Your task to perform on an android device: open app "Spotify" Image 0: 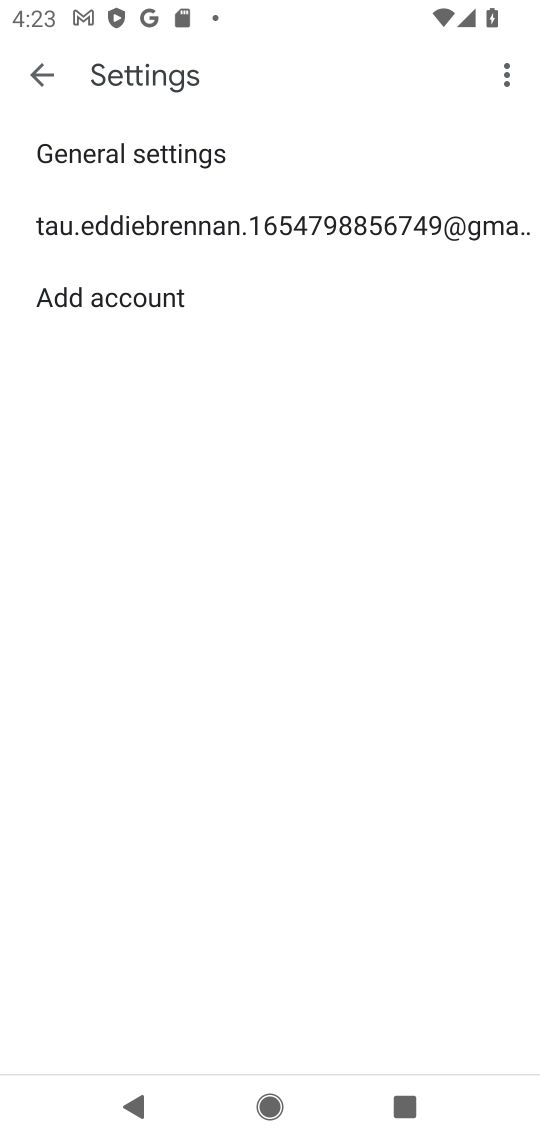
Step 0: press home button
Your task to perform on an android device: open app "Spotify" Image 1: 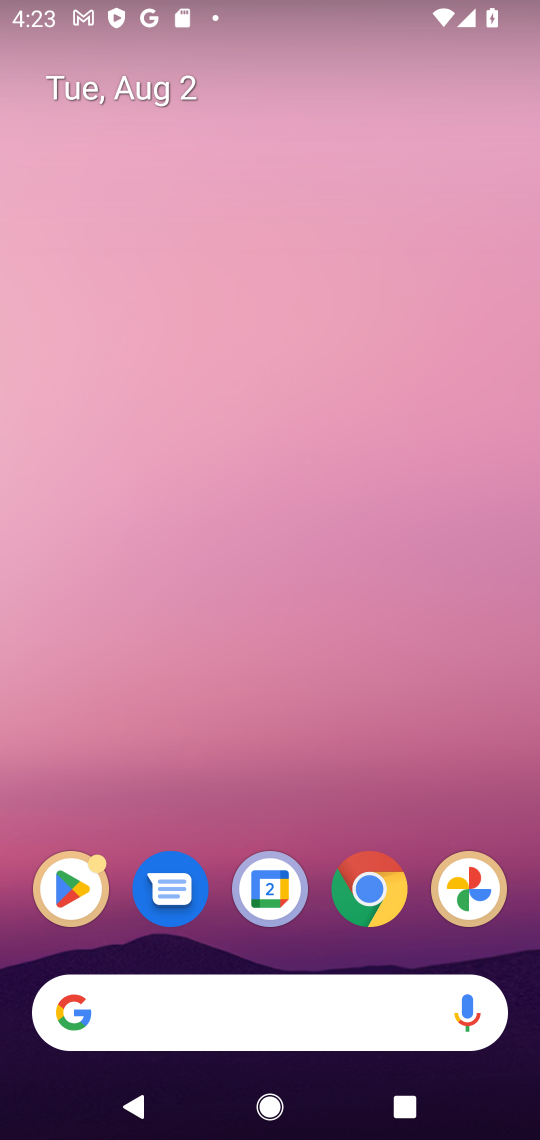
Step 1: click (62, 868)
Your task to perform on an android device: open app "Spotify" Image 2: 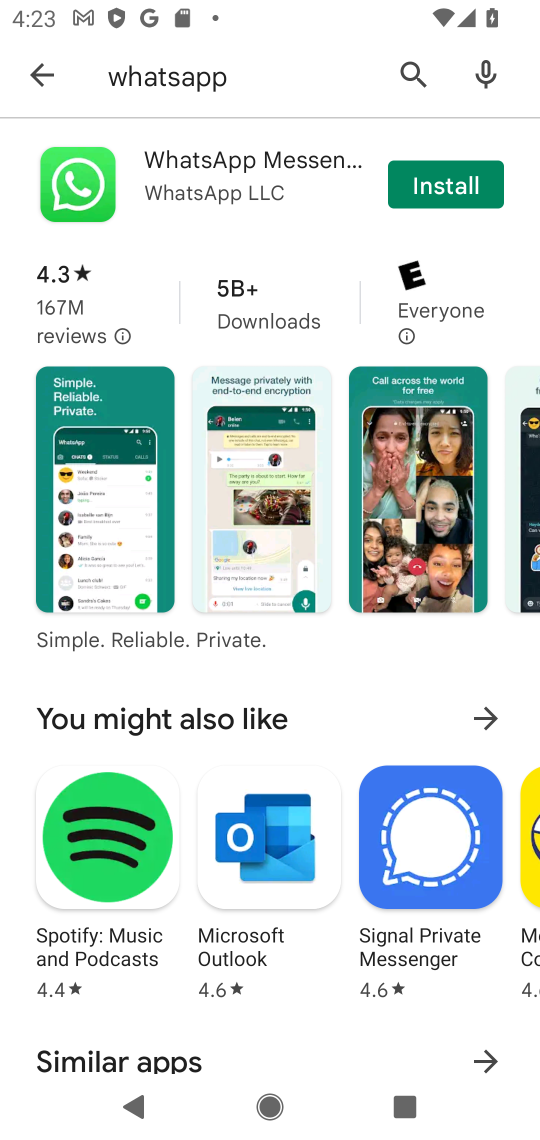
Step 2: click (406, 73)
Your task to perform on an android device: open app "Spotify" Image 3: 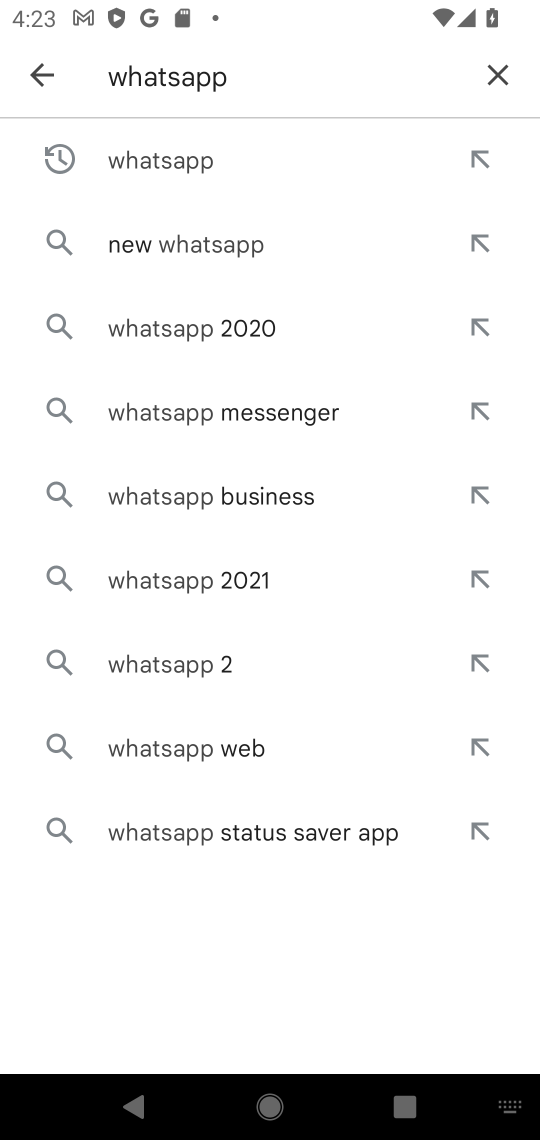
Step 3: click (503, 71)
Your task to perform on an android device: open app "Spotify" Image 4: 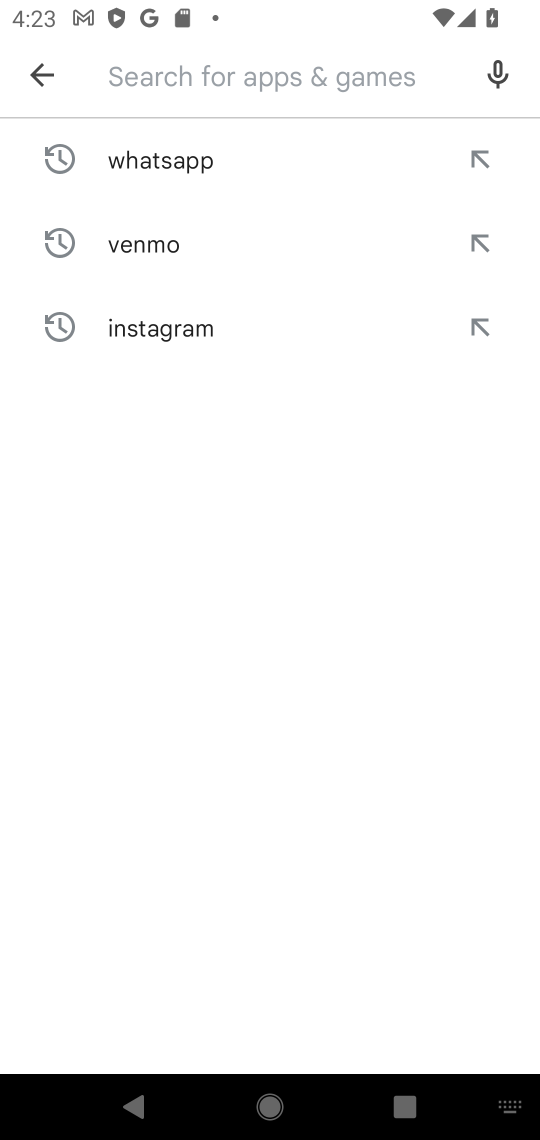
Step 4: type "spotify"
Your task to perform on an android device: open app "Spotify" Image 5: 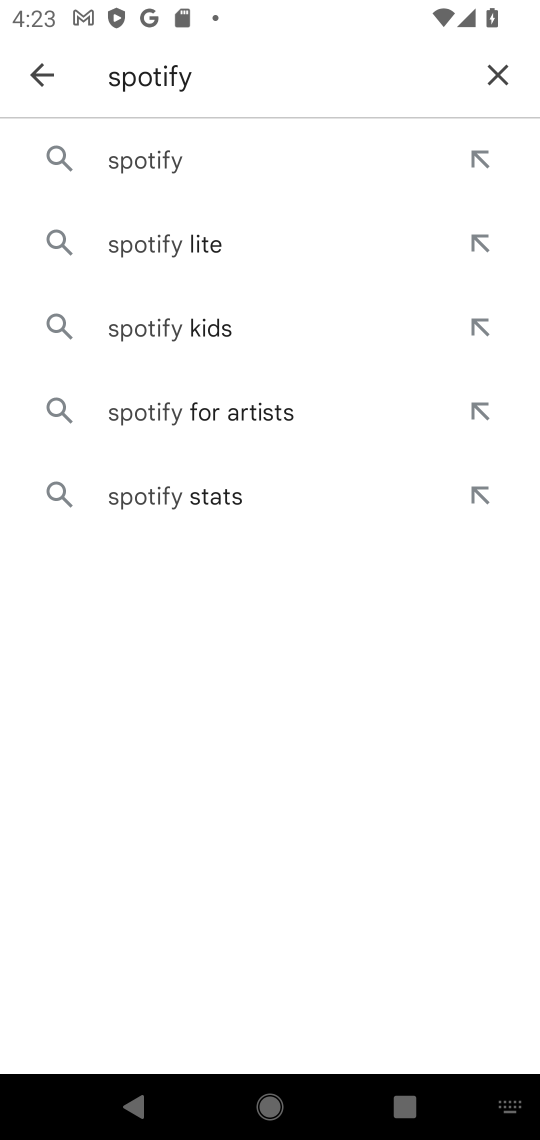
Step 5: click (162, 135)
Your task to perform on an android device: open app "Spotify" Image 6: 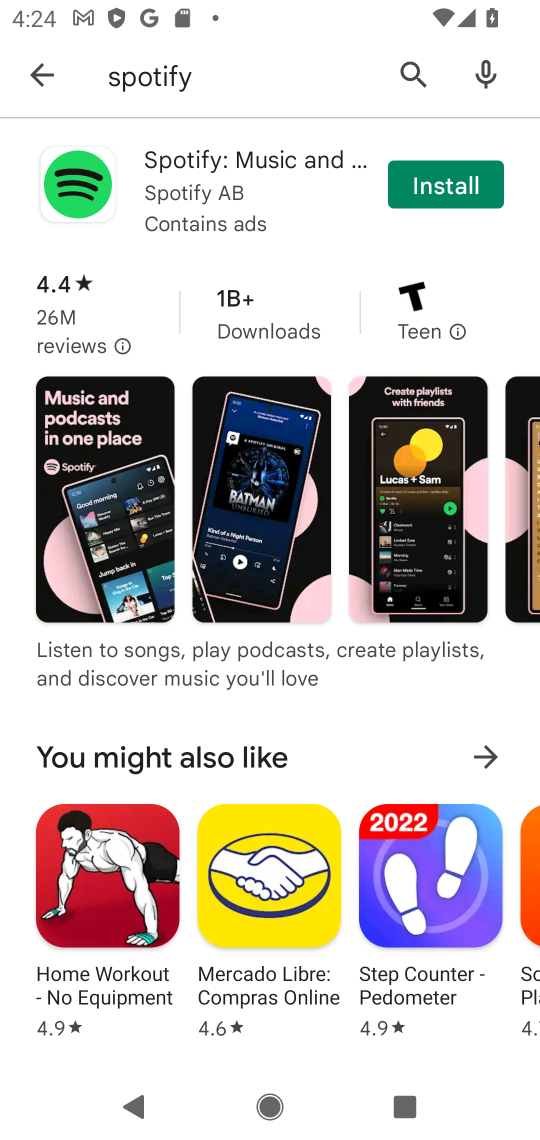
Step 6: task complete